Your task to perform on an android device: open app "File Manager" Image 0: 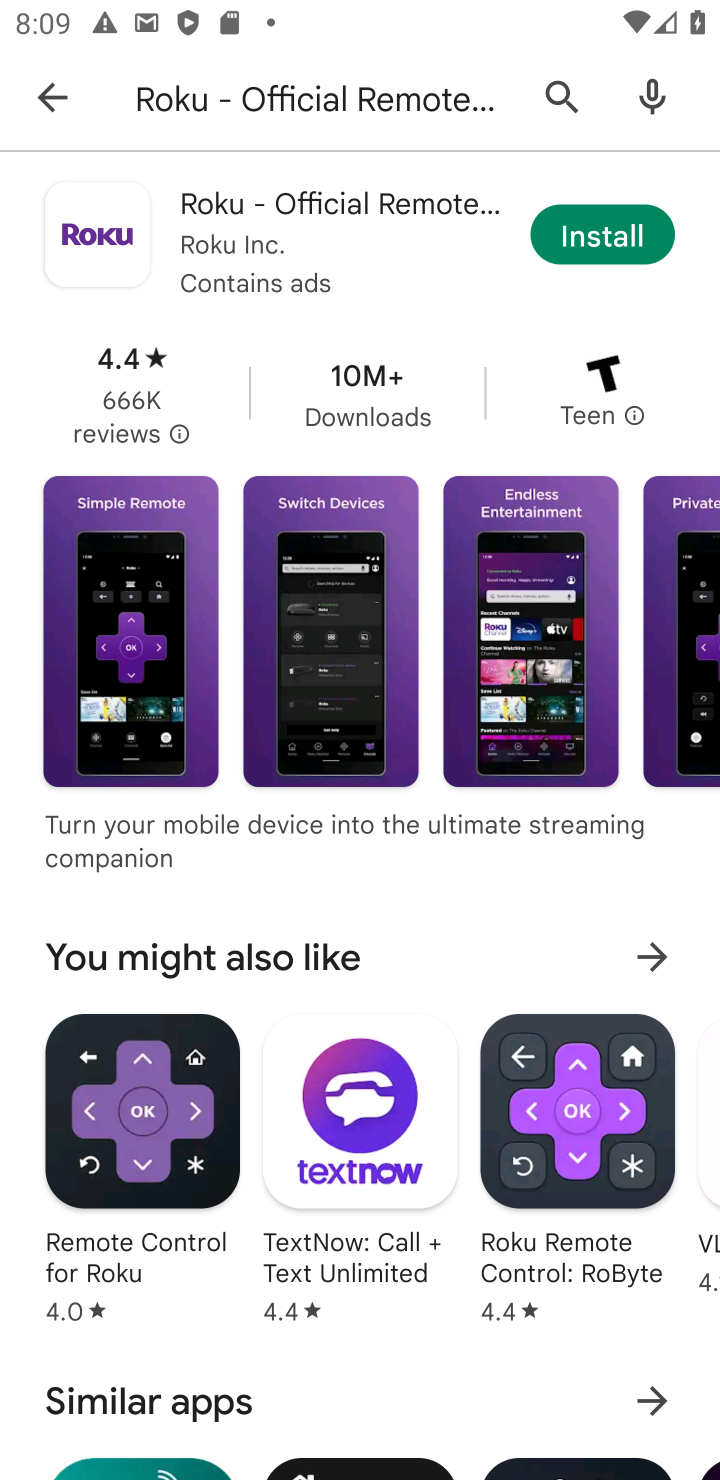
Step 0: click (565, 104)
Your task to perform on an android device: open app "File Manager" Image 1: 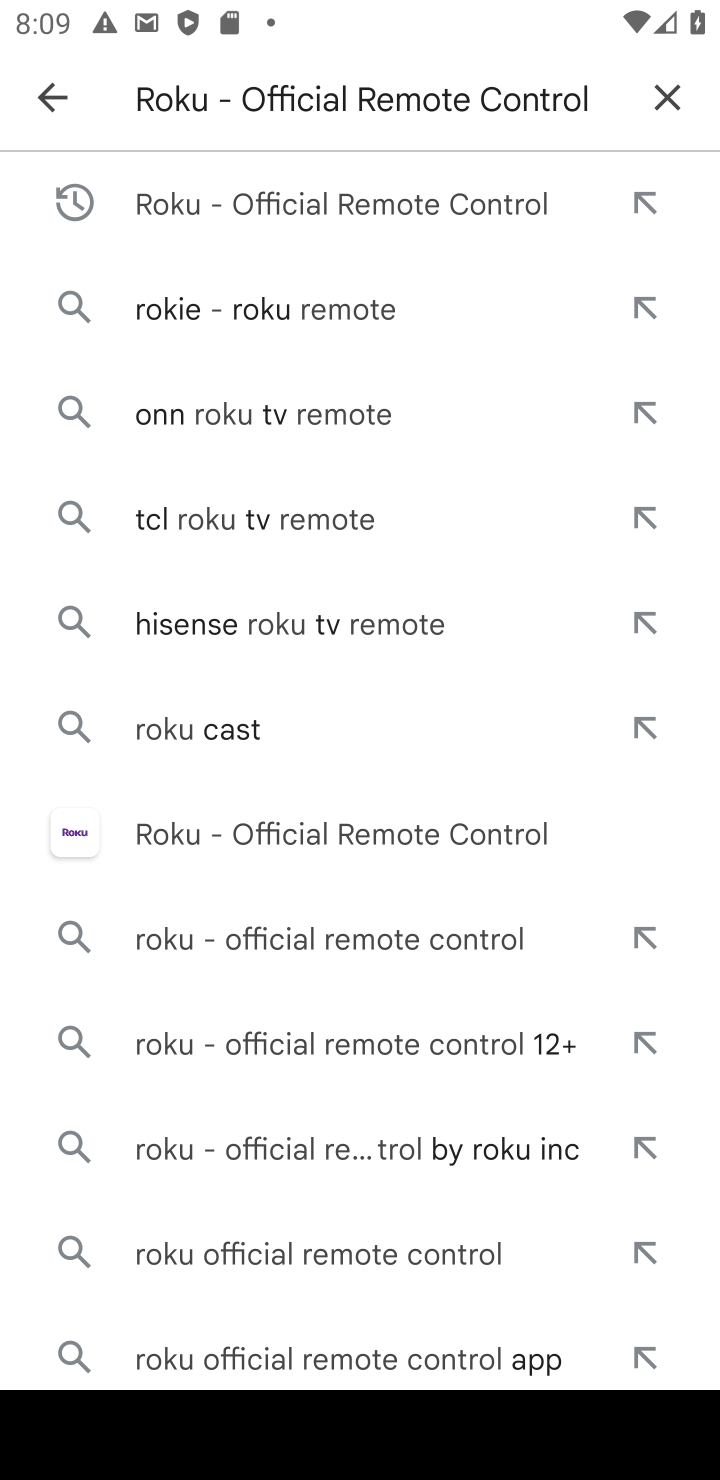
Step 1: click (673, 104)
Your task to perform on an android device: open app "File Manager" Image 2: 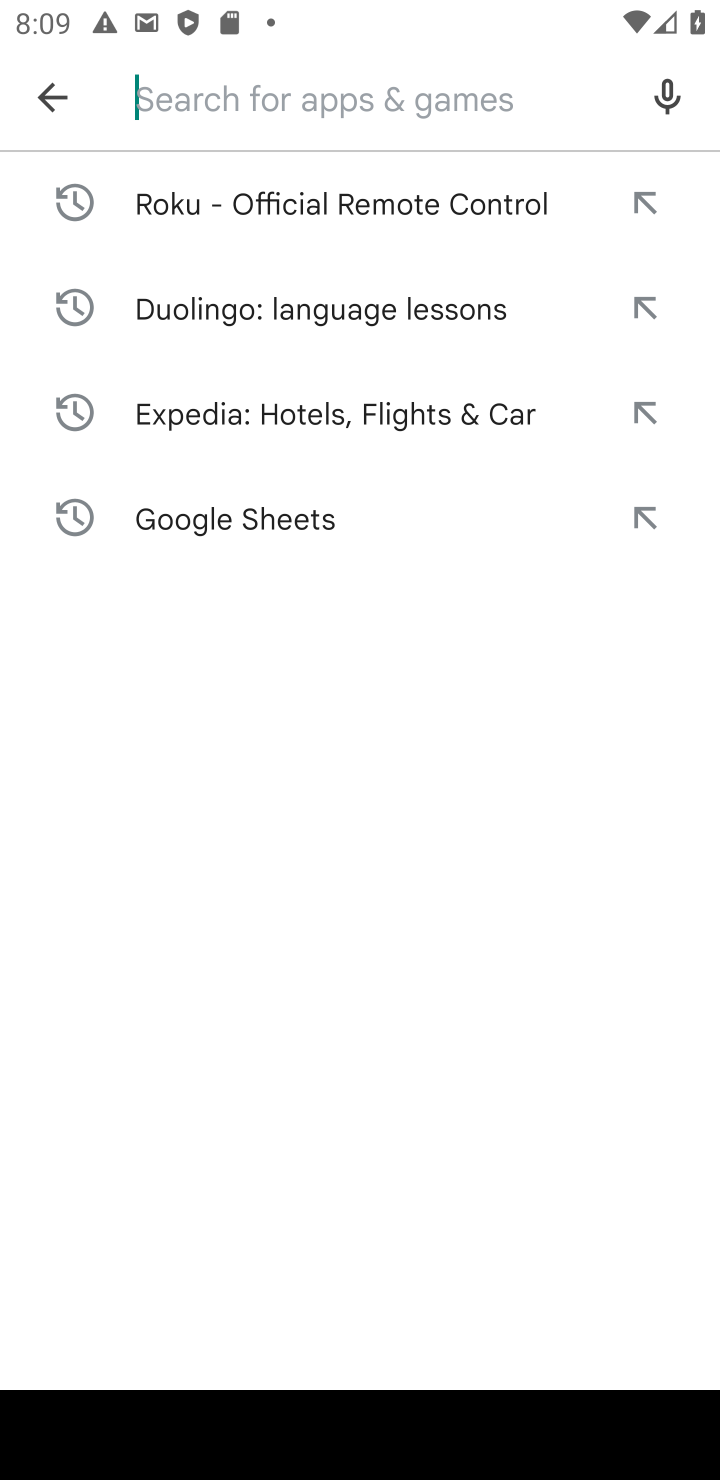
Step 2: type "file Manager"
Your task to perform on an android device: open app "File Manager" Image 3: 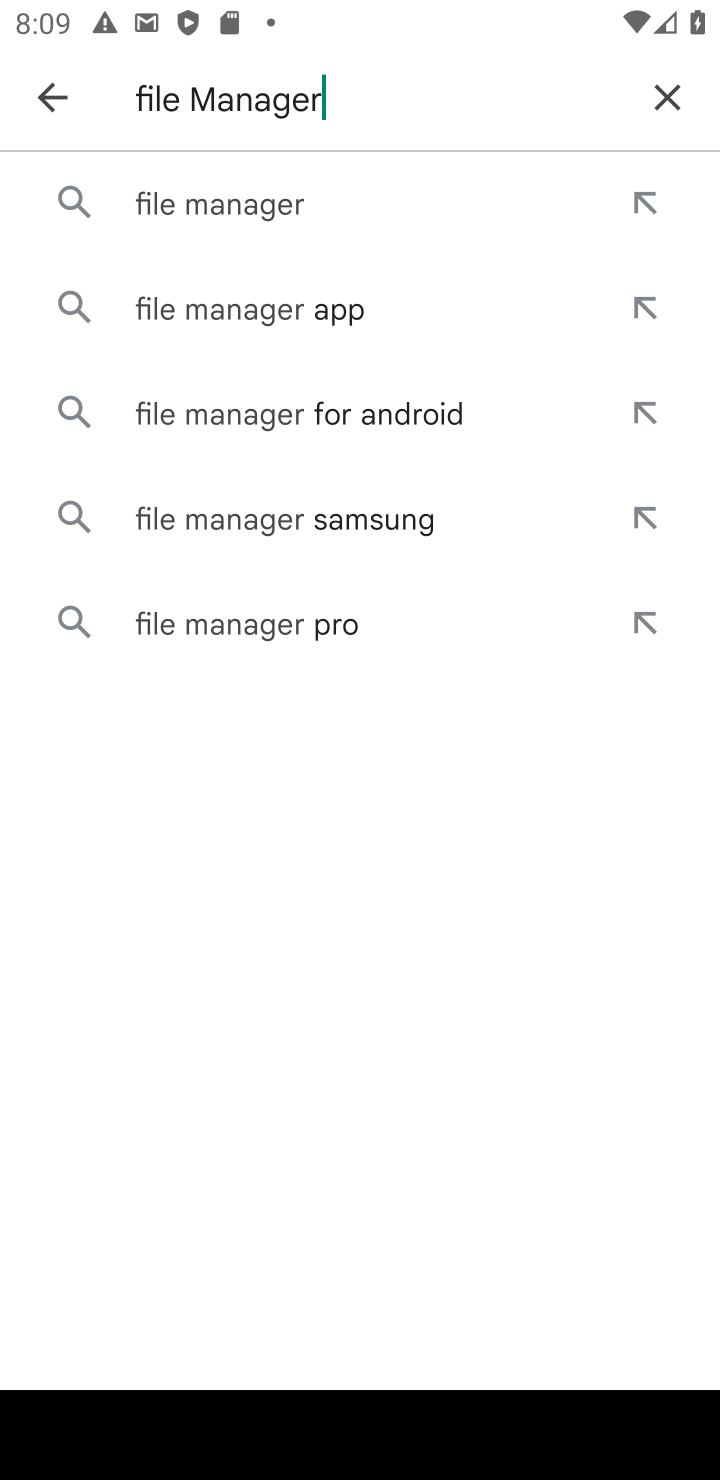
Step 3: click (285, 217)
Your task to perform on an android device: open app "File Manager" Image 4: 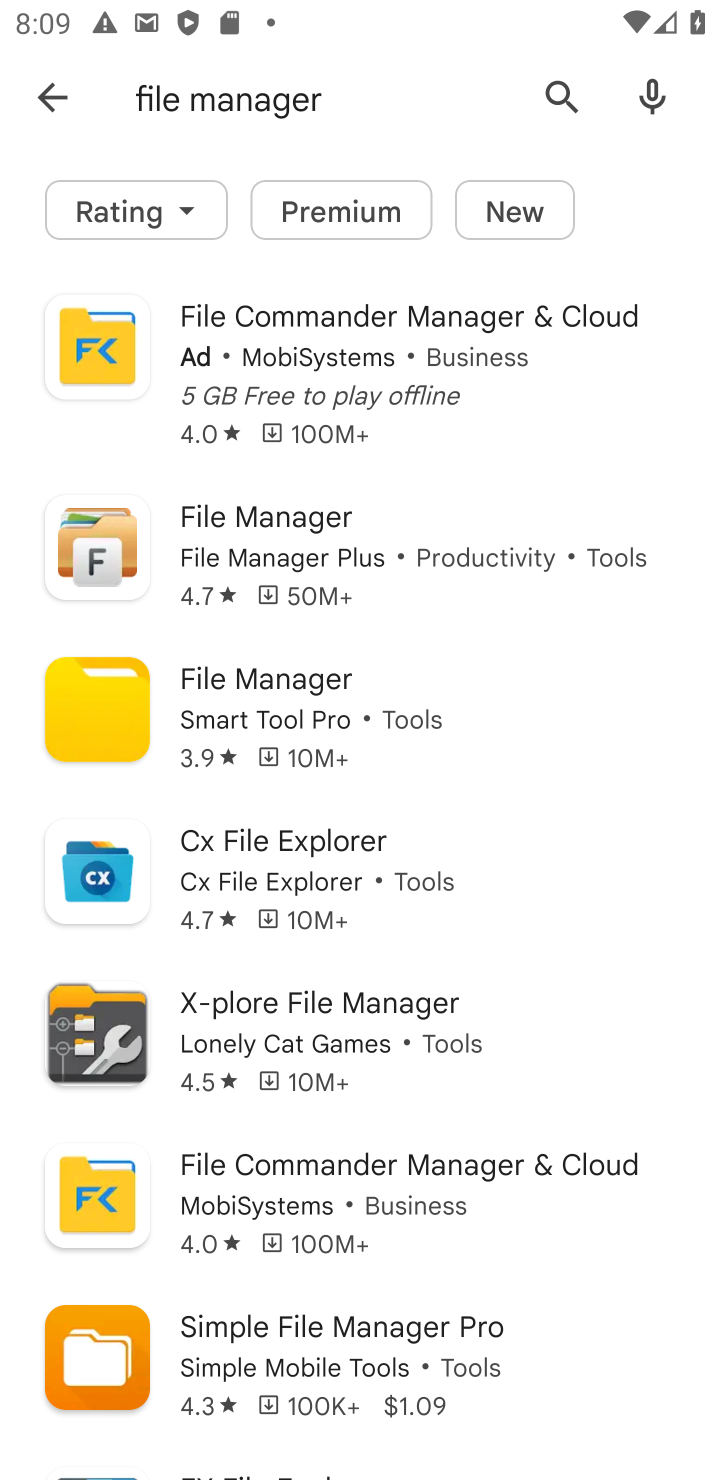
Step 4: drag from (429, 1297) to (572, 152)
Your task to perform on an android device: open app "File Manager" Image 5: 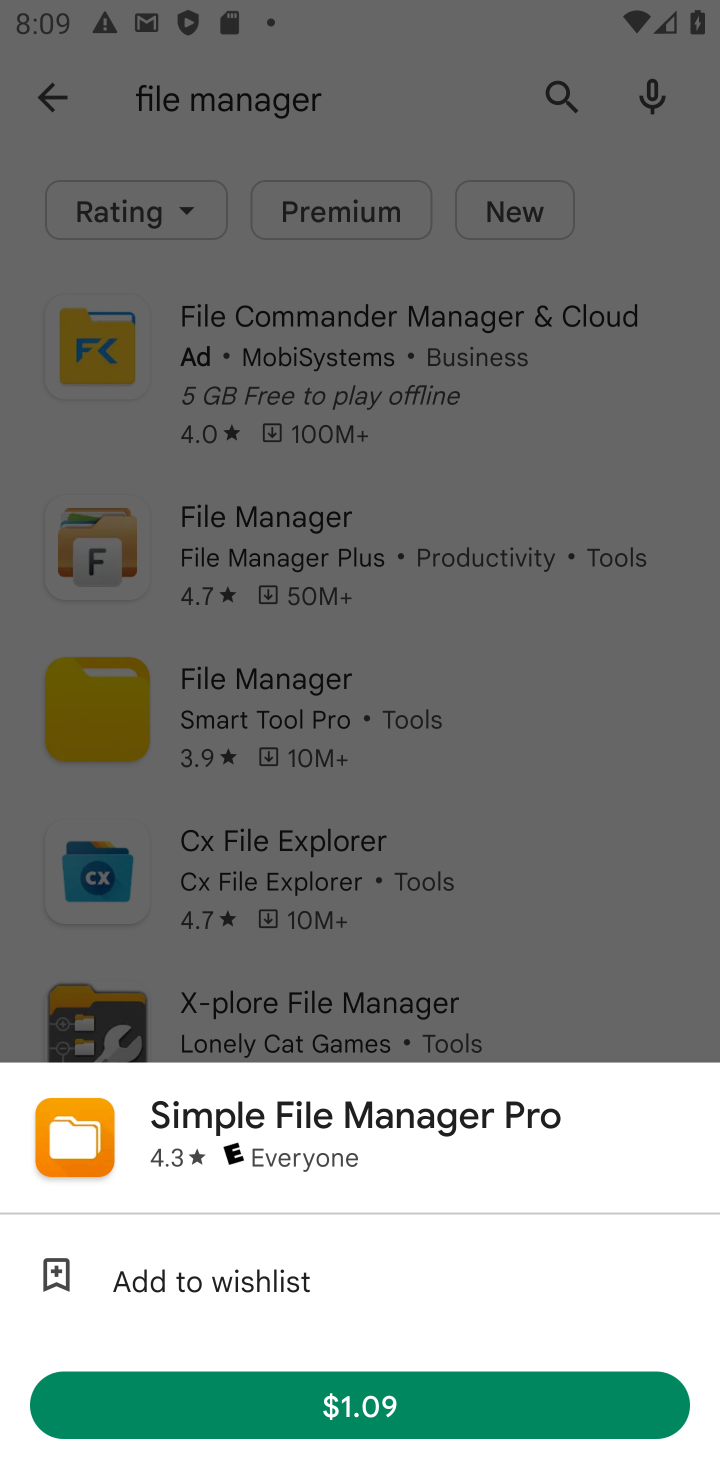
Step 5: click (497, 666)
Your task to perform on an android device: open app "File Manager" Image 6: 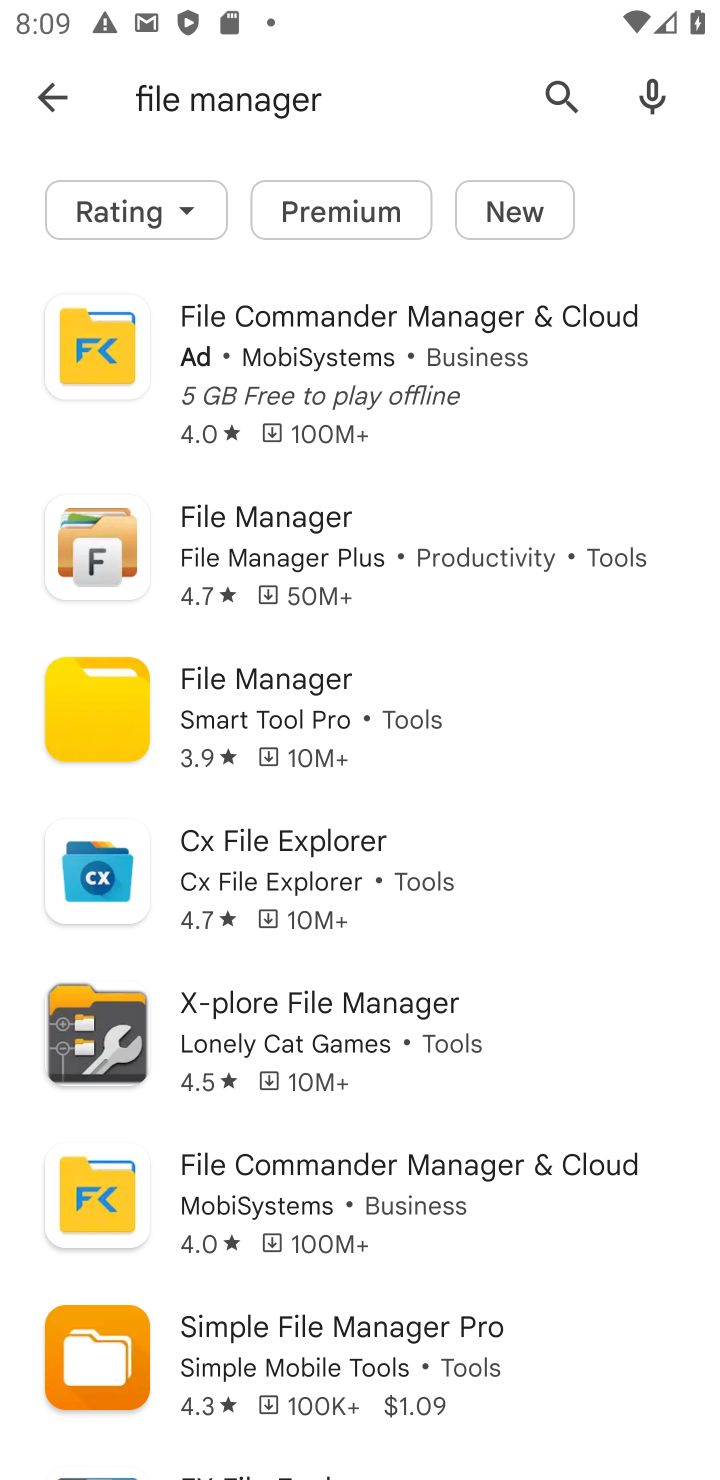
Step 6: click (282, 728)
Your task to perform on an android device: open app "File Manager" Image 7: 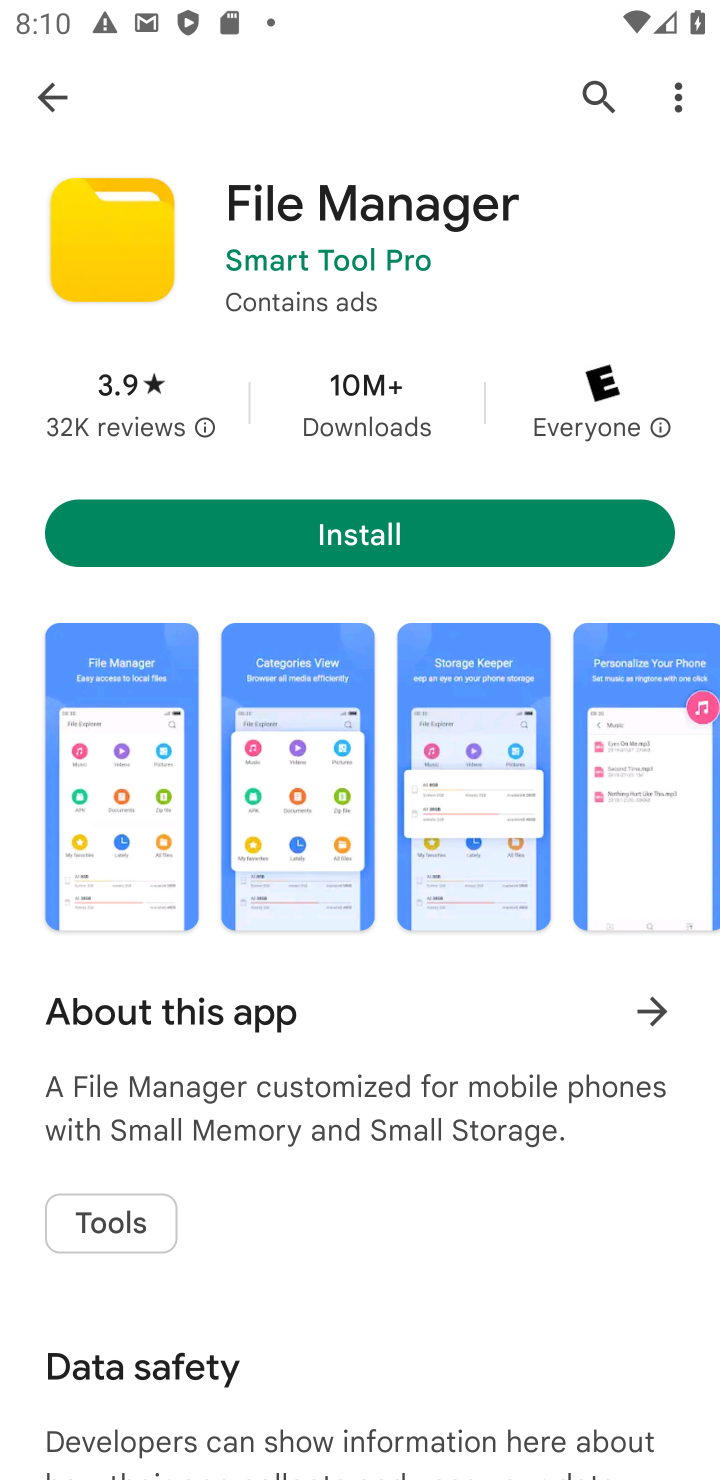
Step 7: task complete